Your task to perform on an android device: turn on the 12-hour format for clock Image 0: 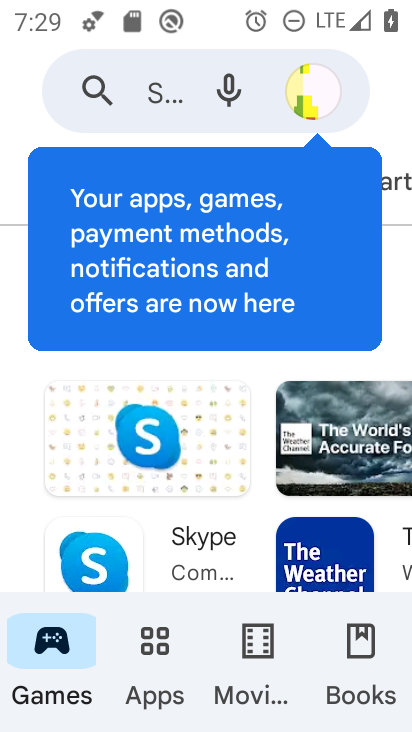
Step 0: press home button
Your task to perform on an android device: turn on the 12-hour format for clock Image 1: 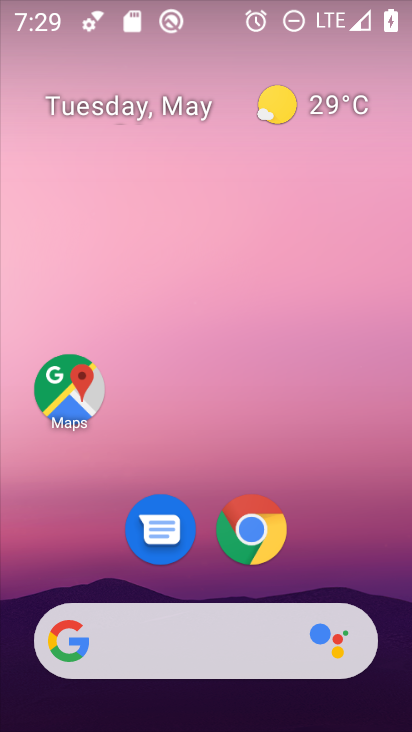
Step 1: drag from (400, 634) to (282, 17)
Your task to perform on an android device: turn on the 12-hour format for clock Image 2: 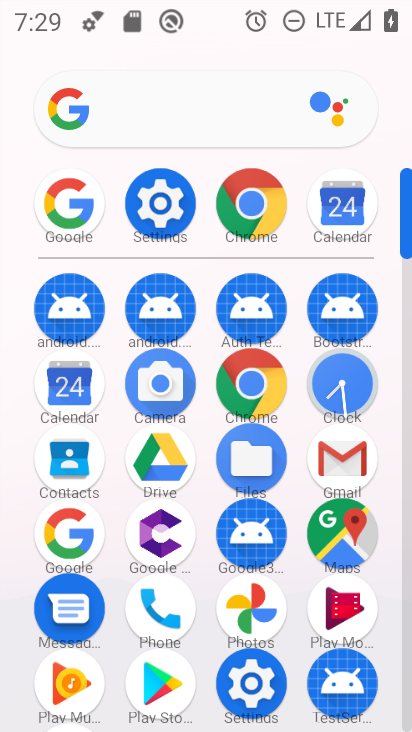
Step 2: click (350, 386)
Your task to perform on an android device: turn on the 12-hour format for clock Image 3: 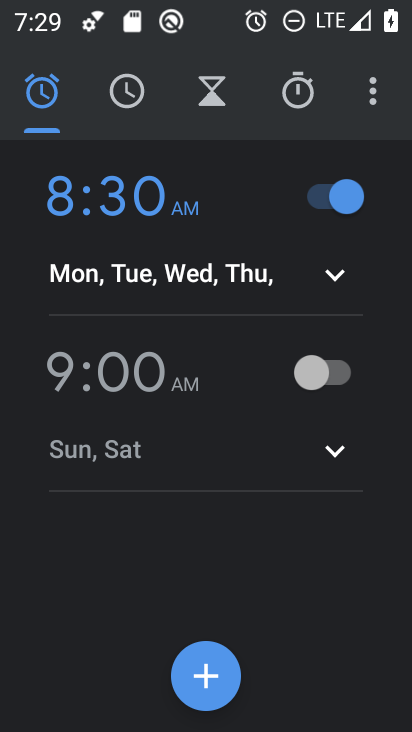
Step 3: click (380, 87)
Your task to perform on an android device: turn on the 12-hour format for clock Image 4: 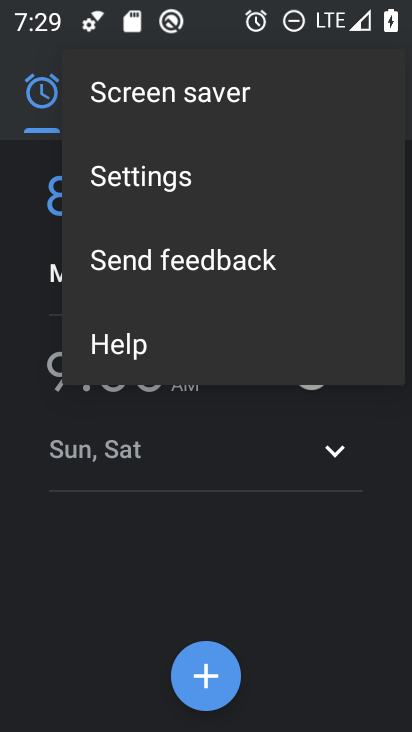
Step 4: click (225, 197)
Your task to perform on an android device: turn on the 12-hour format for clock Image 5: 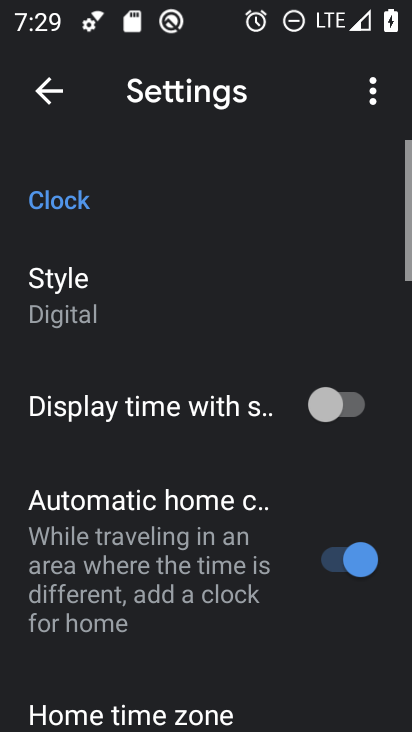
Step 5: drag from (176, 659) to (225, 191)
Your task to perform on an android device: turn on the 12-hour format for clock Image 6: 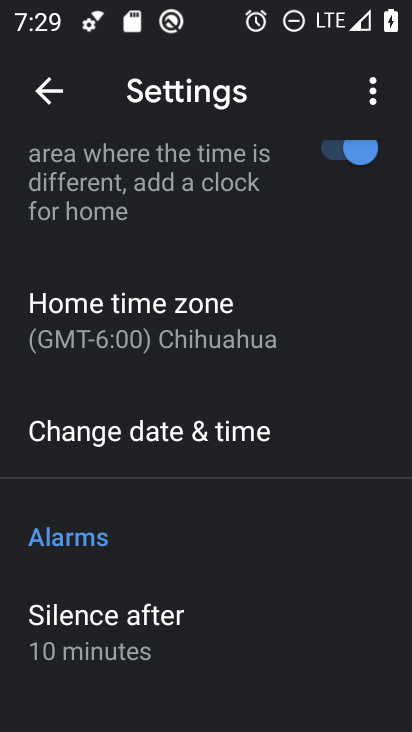
Step 6: click (250, 447)
Your task to perform on an android device: turn on the 12-hour format for clock Image 7: 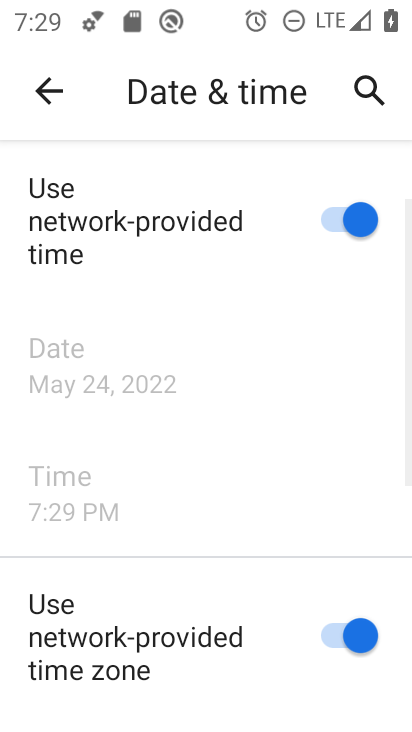
Step 7: task complete